Your task to perform on an android device: visit the assistant section in the google photos Image 0: 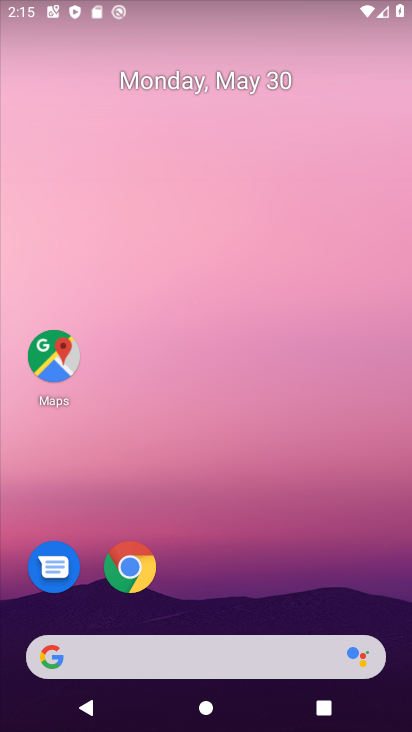
Step 0: drag from (222, 606) to (215, 80)
Your task to perform on an android device: visit the assistant section in the google photos Image 1: 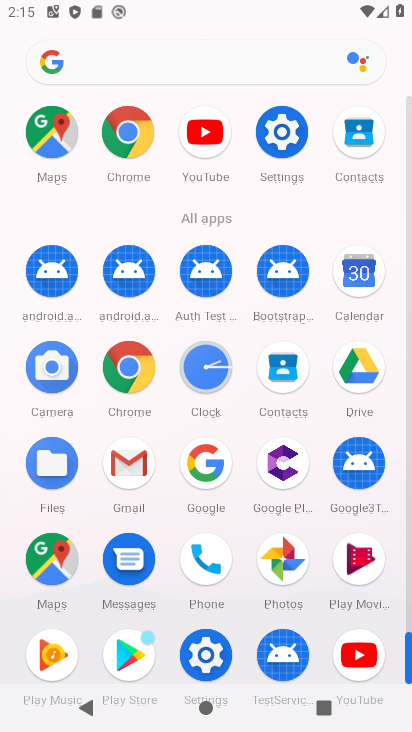
Step 1: click (288, 575)
Your task to perform on an android device: visit the assistant section in the google photos Image 2: 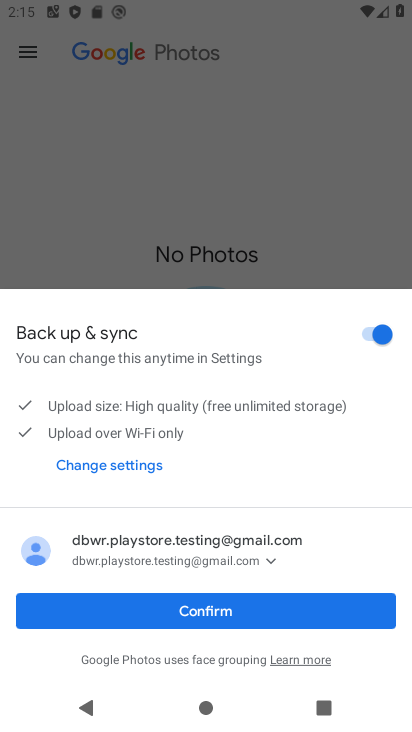
Step 2: click (258, 610)
Your task to perform on an android device: visit the assistant section in the google photos Image 3: 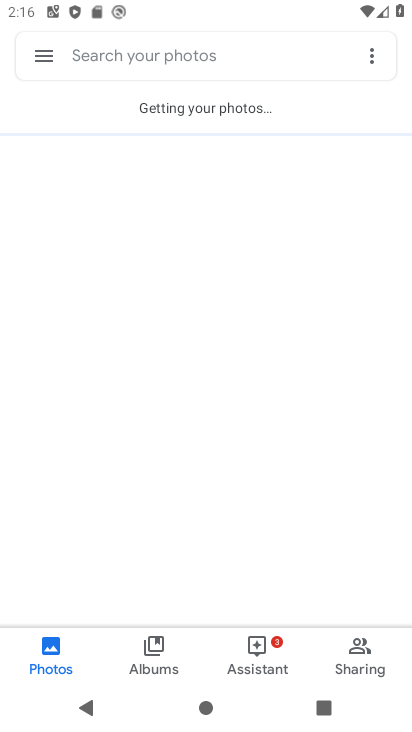
Step 3: click (270, 664)
Your task to perform on an android device: visit the assistant section in the google photos Image 4: 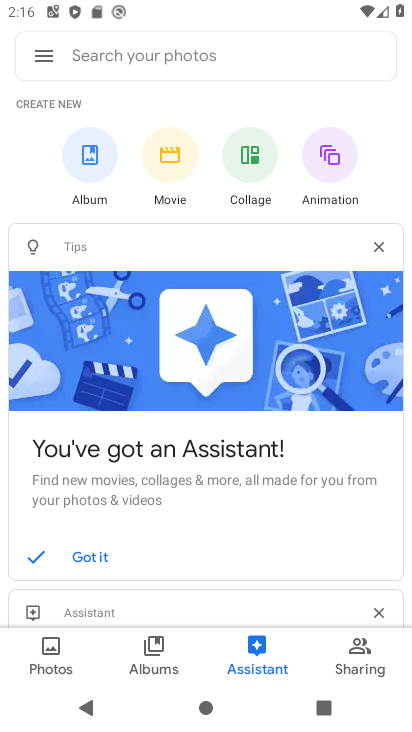
Step 4: task complete